Your task to perform on an android device: Do I have any events this weekend? Image 0: 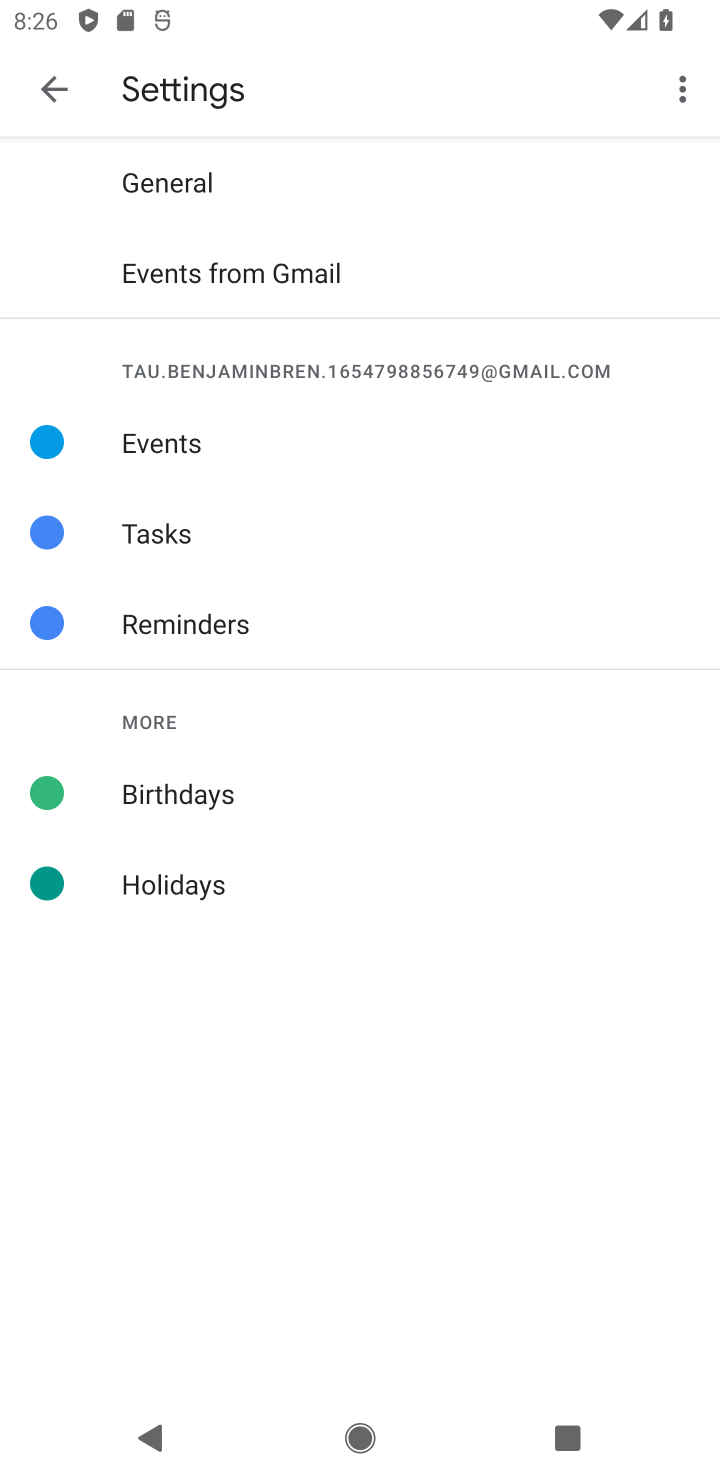
Step 0: press home button
Your task to perform on an android device: Do I have any events this weekend? Image 1: 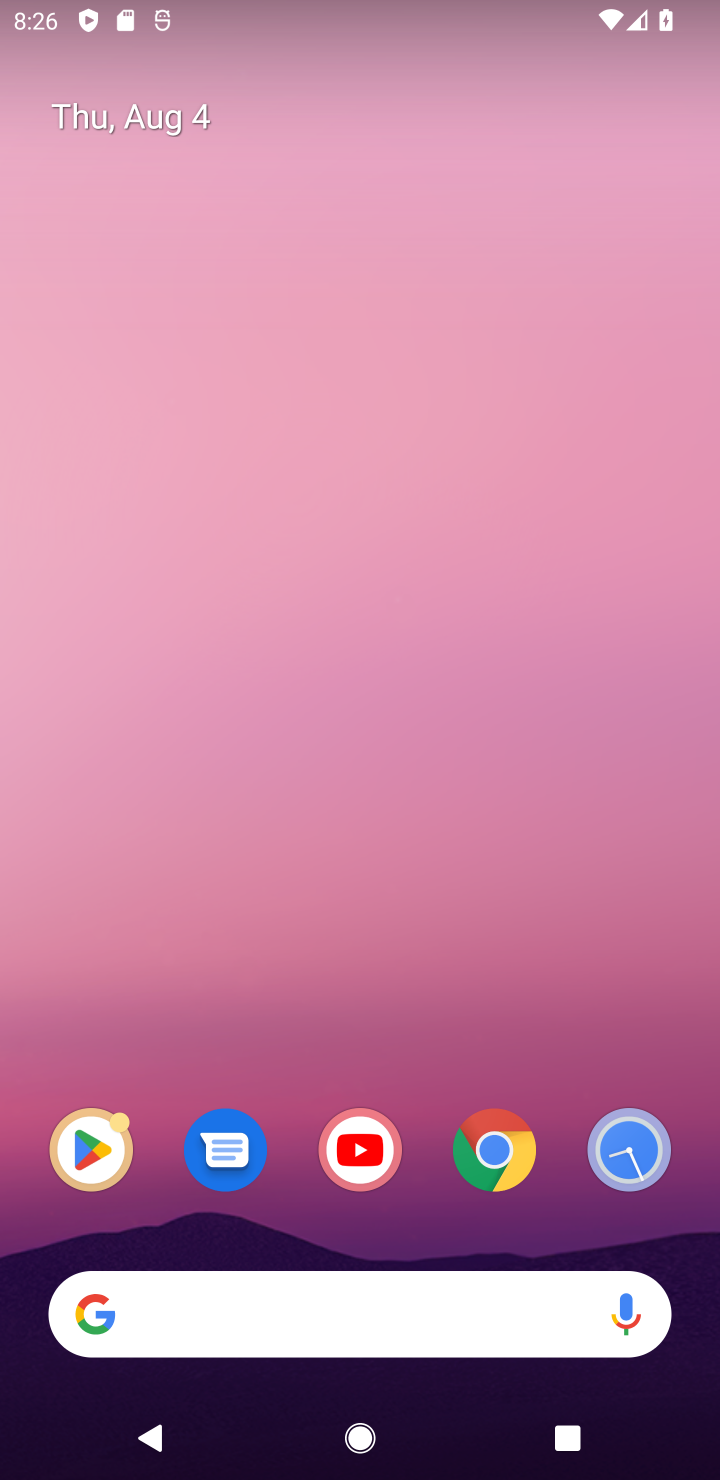
Step 1: drag from (354, 1289) to (398, 31)
Your task to perform on an android device: Do I have any events this weekend? Image 2: 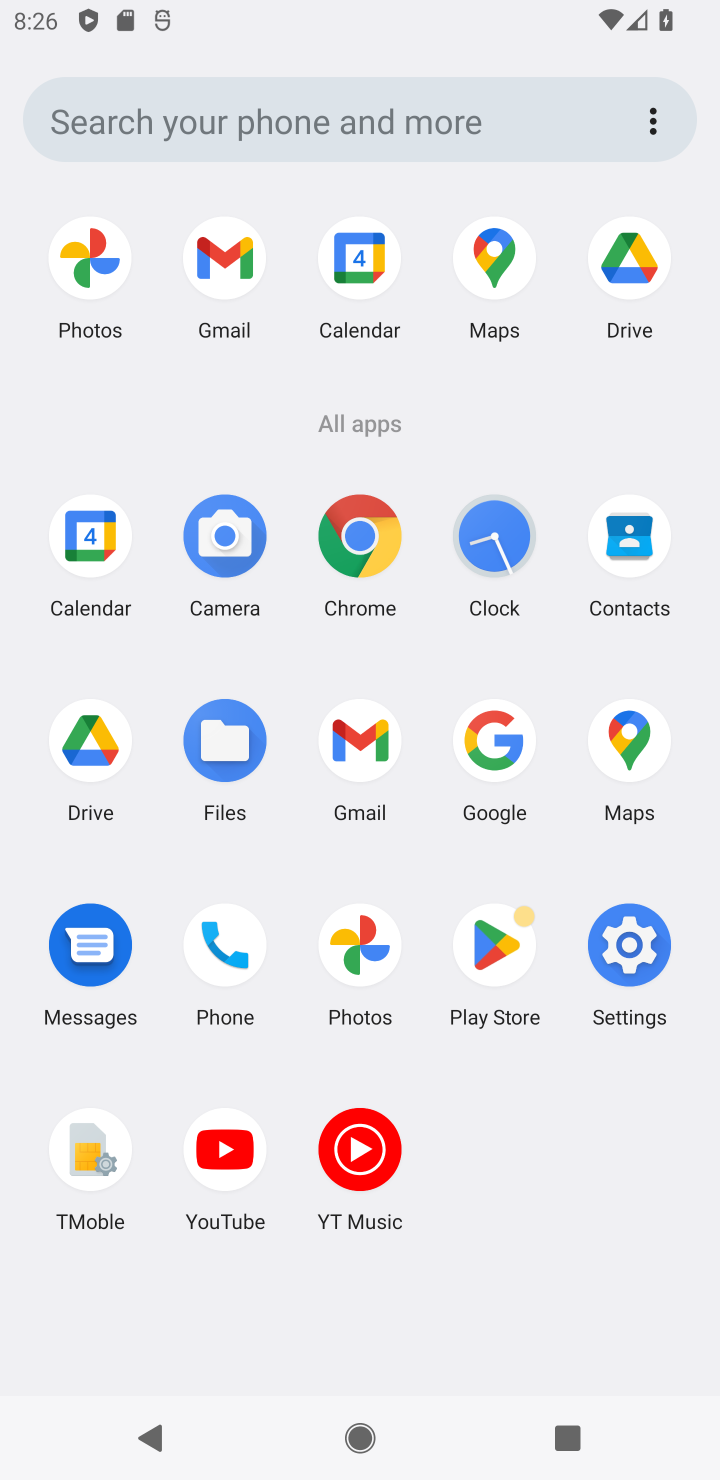
Step 2: click (99, 543)
Your task to perform on an android device: Do I have any events this weekend? Image 3: 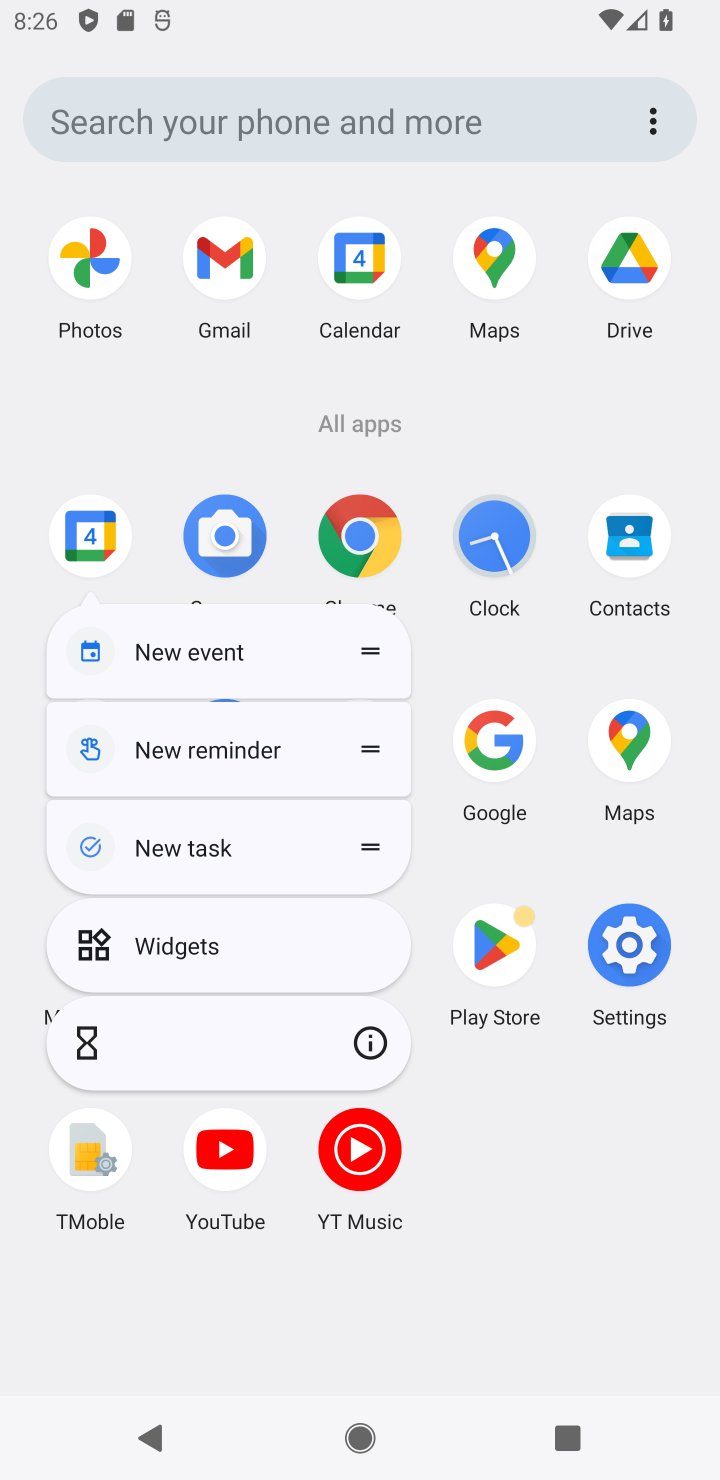
Step 3: click (85, 519)
Your task to perform on an android device: Do I have any events this weekend? Image 4: 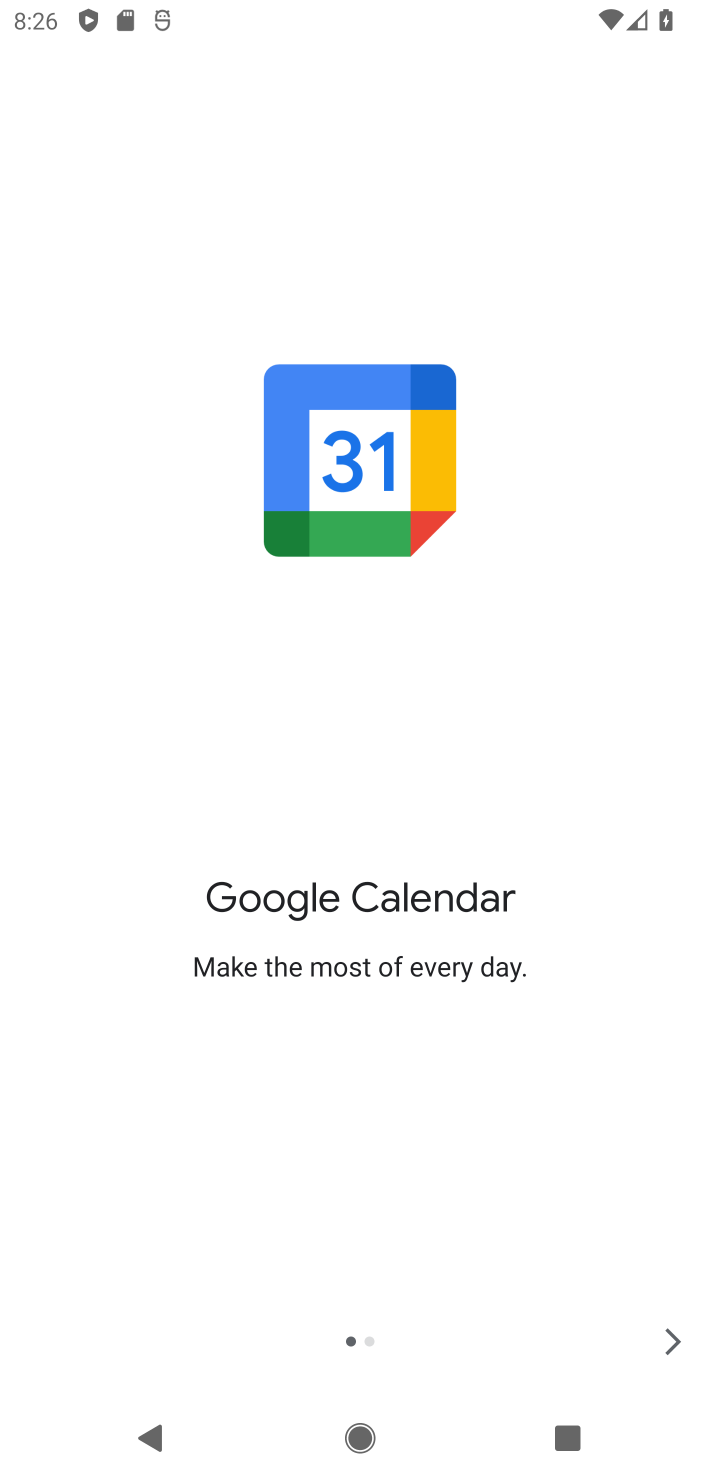
Step 4: click (638, 1330)
Your task to perform on an android device: Do I have any events this weekend? Image 5: 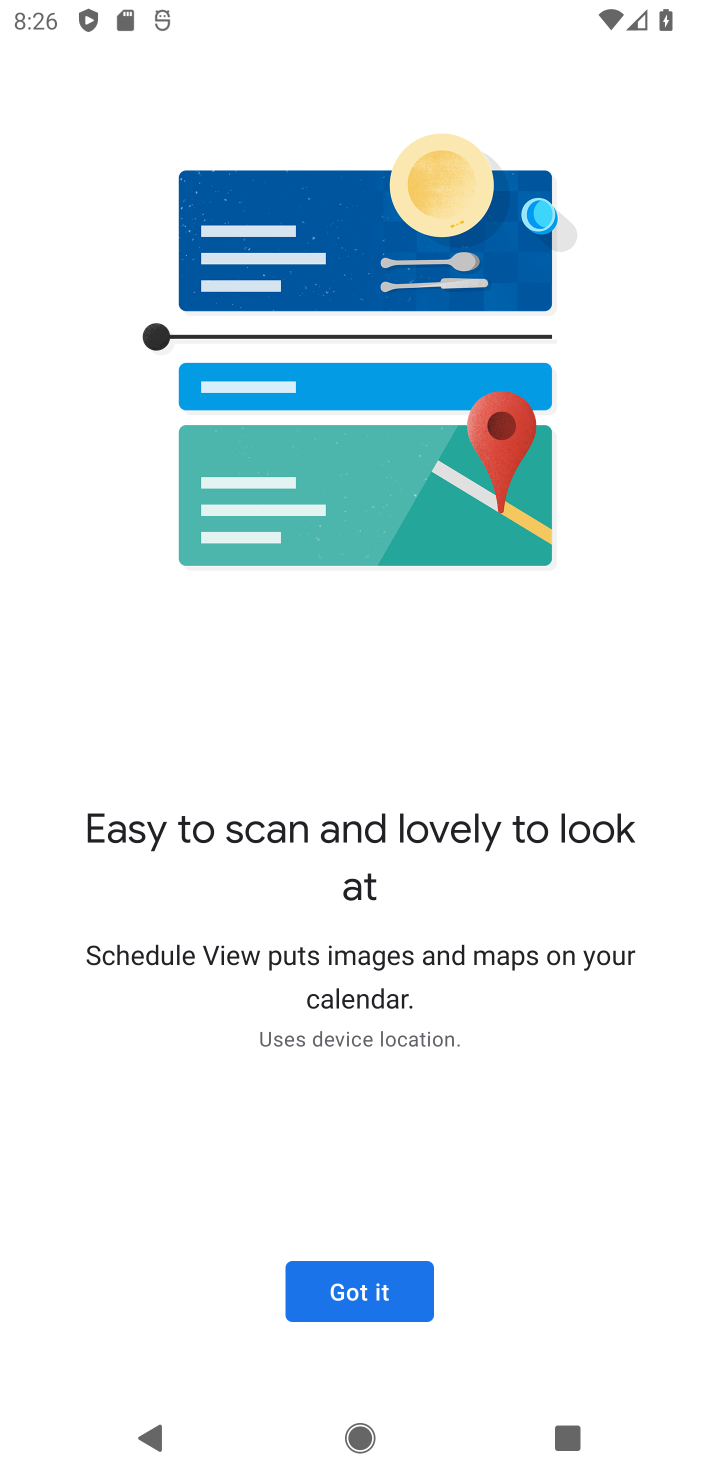
Step 5: click (638, 1330)
Your task to perform on an android device: Do I have any events this weekend? Image 6: 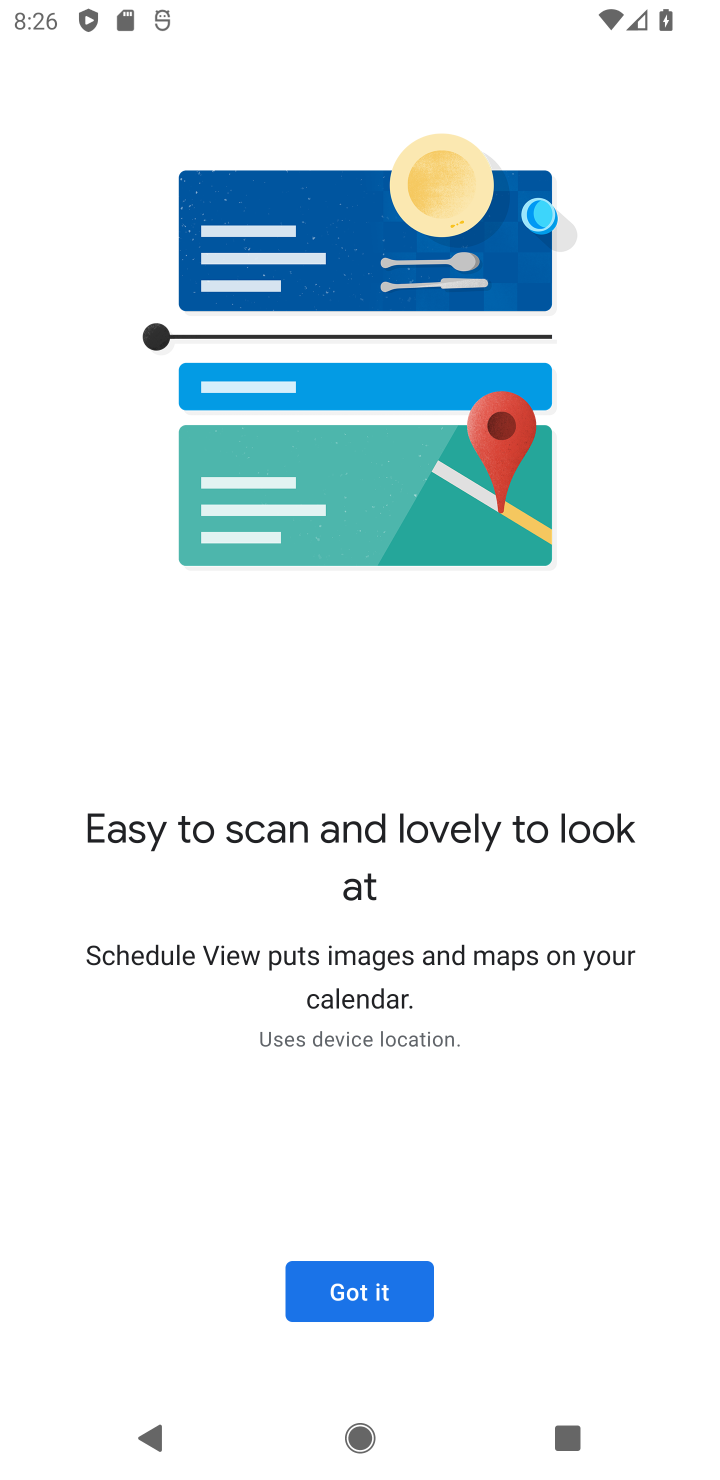
Step 6: click (375, 1307)
Your task to perform on an android device: Do I have any events this weekend? Image 7: 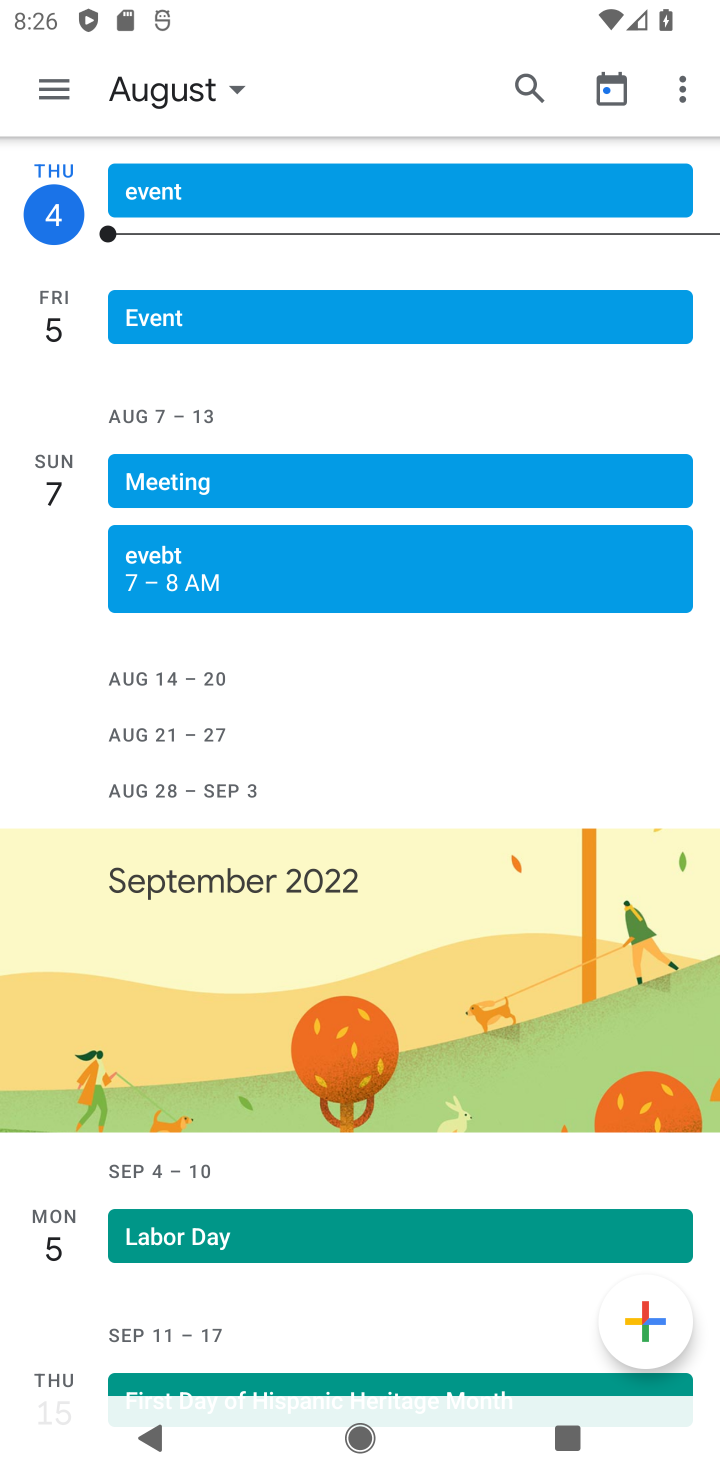
Step 7: click (50, 72)
Your task to perform on an android device: Do I have any events this weekend? Image 8: 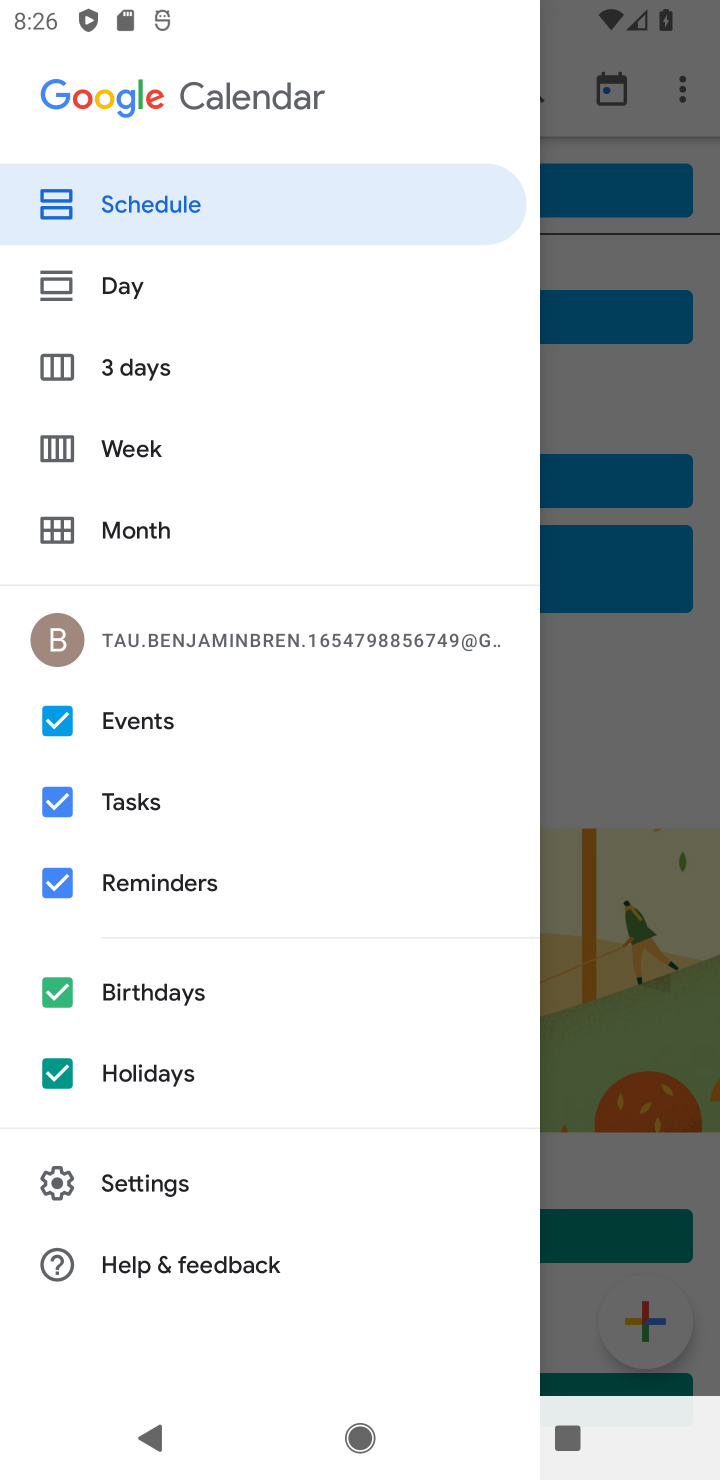
Step 8: click (121, 436)
Your task to perform on an android device: Do I have any events this weekend? Image 9: 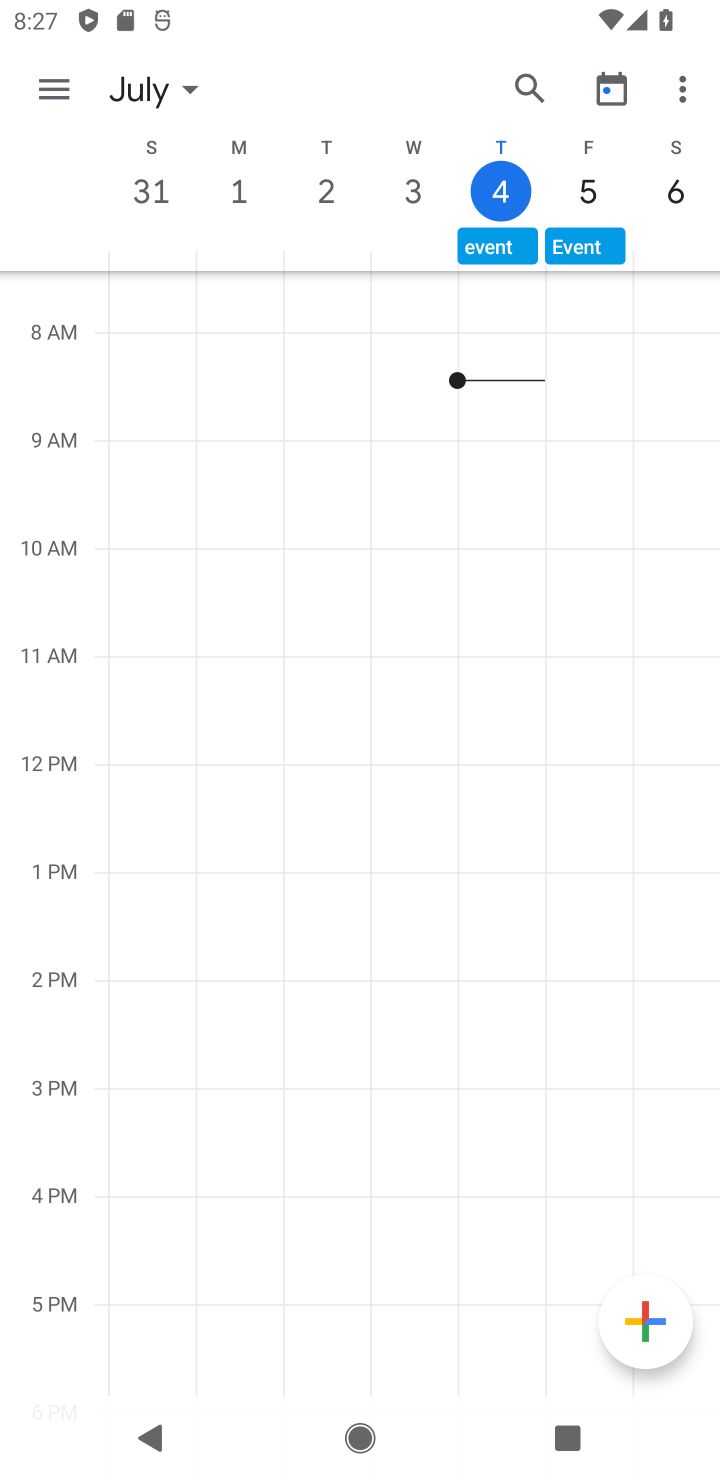
Step 9: task complete